Your task to perform on an android device: open chrome privacy settings Image 0: 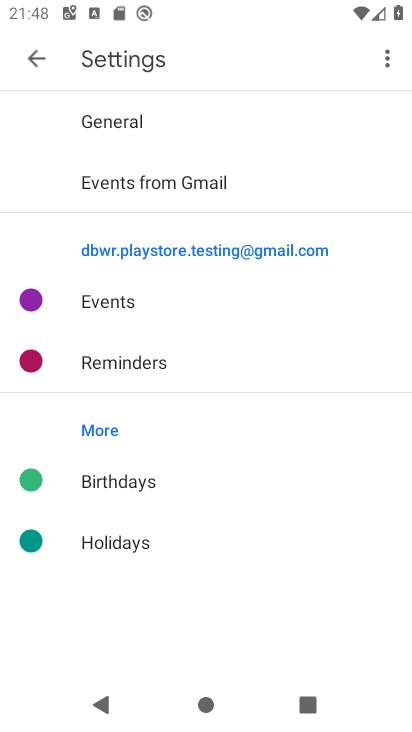
Step 0: press home button
Your task to perform on an android device: open chrome privacy settings Image 1: 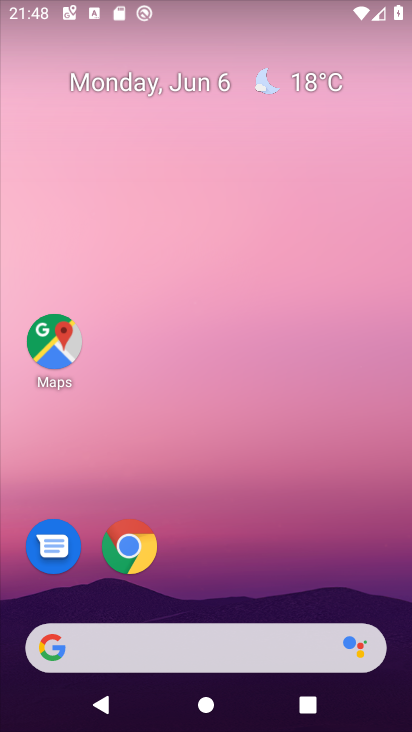
Step 1: click (125, 547)
Your task to perform on an android device: open chrome privacy settings Image 2: 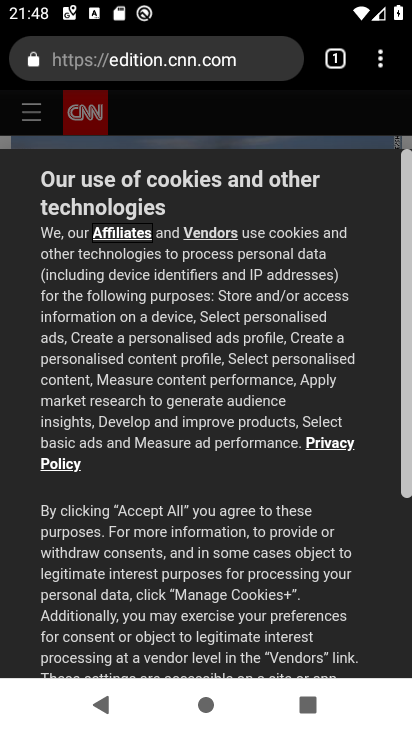
Step 2: click (377, 68)
Your task to perform on an android device: open chrome privacy settings Image 3: 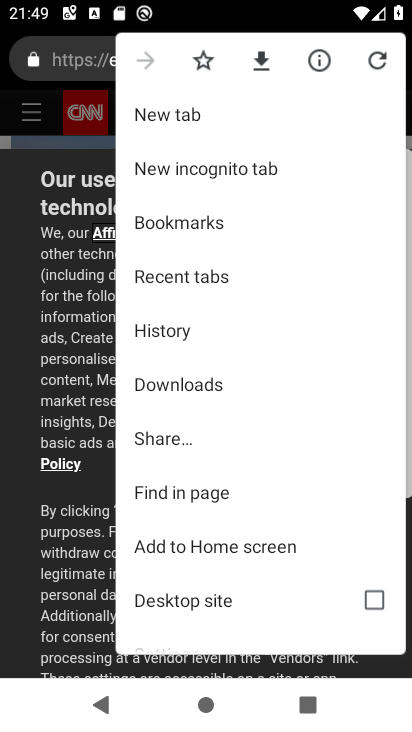
Step 3: drag from (259, 580) to (269, 157)
Your task to perform on an android device: open chrome privacy settings Image 4: 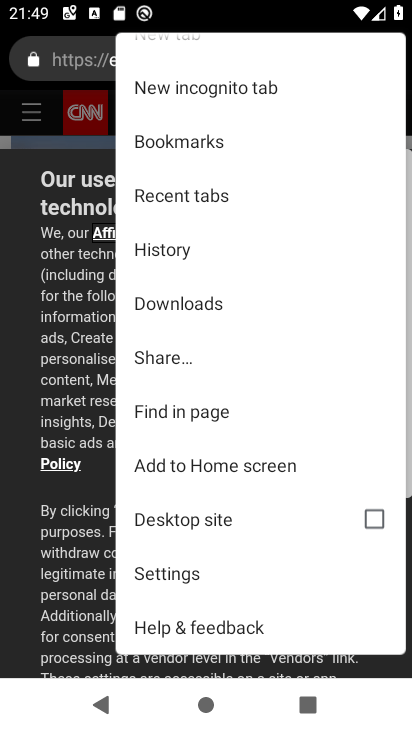
Step 4: click (163, 560)
Your task to perform on an android device: open chrome privacy settings Image 5: 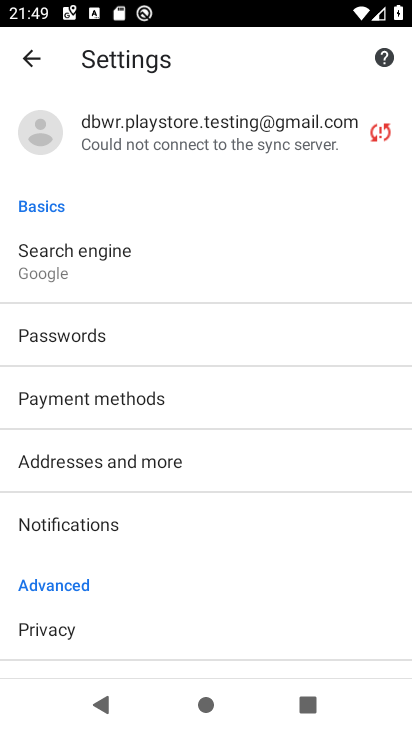
Step 5: drag from (230, 636) to (213, 362)
Your task to perform on an android device: open chrome privacy settings Image 6: 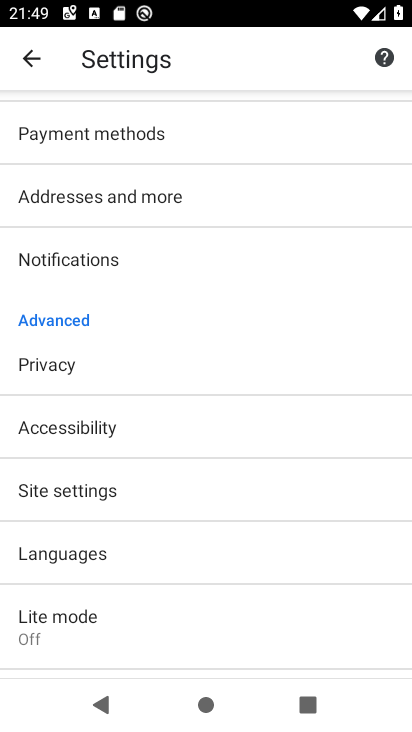
Step 6: click (61, 369)
Your task to perform on an android device: open chrome privacy settings Image 7: 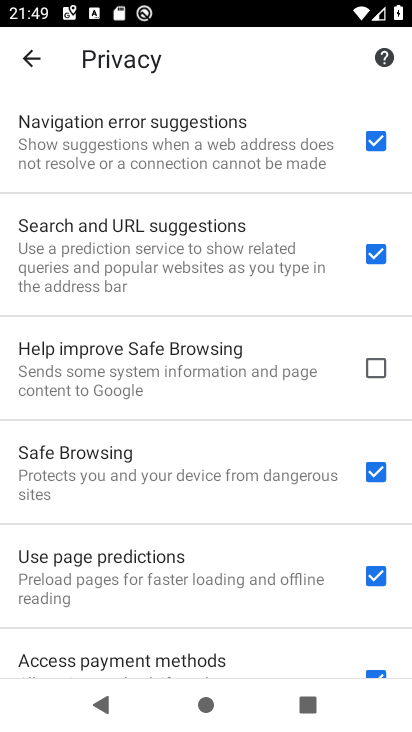
Step 7: task complete